Your task to perform on an android device: Open the stopwatch Image 0: 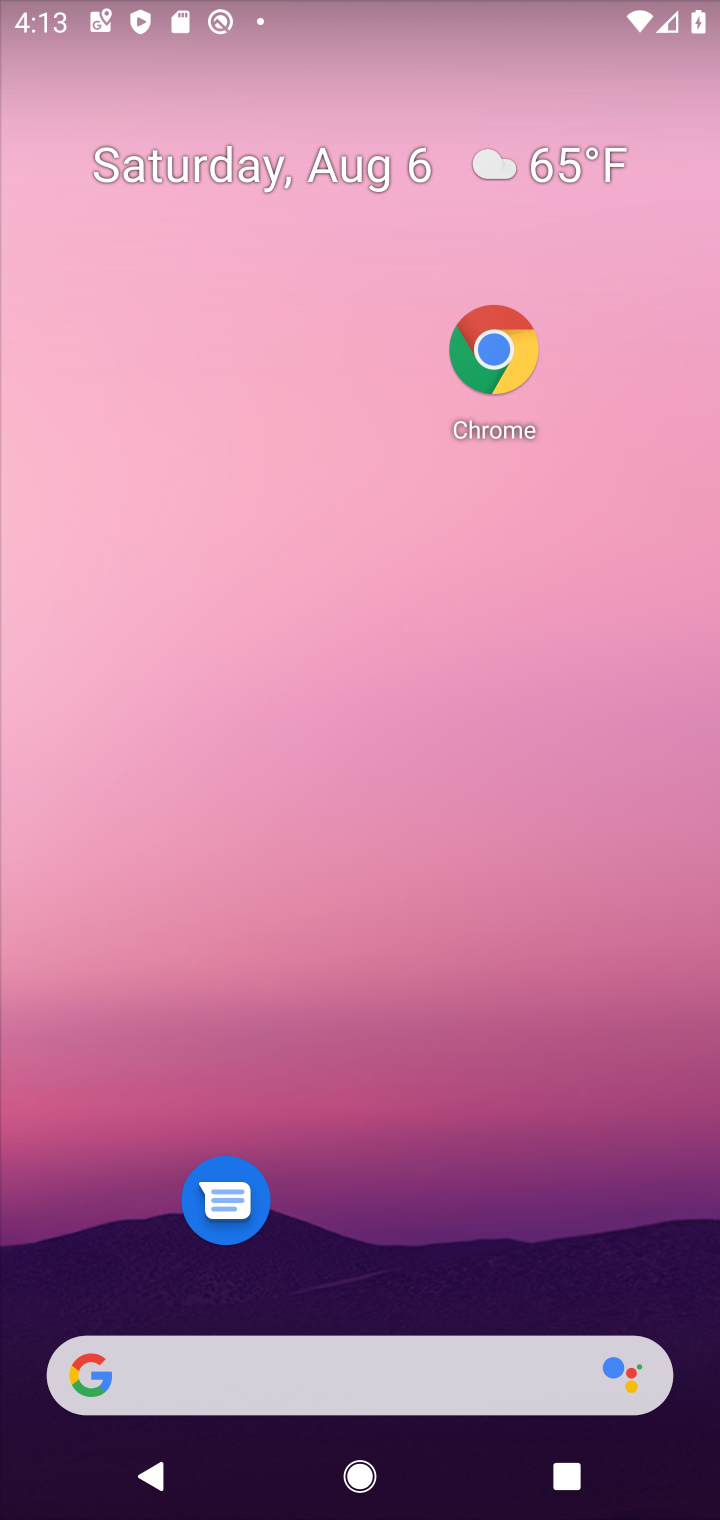
Step 0: drag from (312, 1335) to (322, 619)
Your task to perform on an android device: Open the stopwatch Image 1: 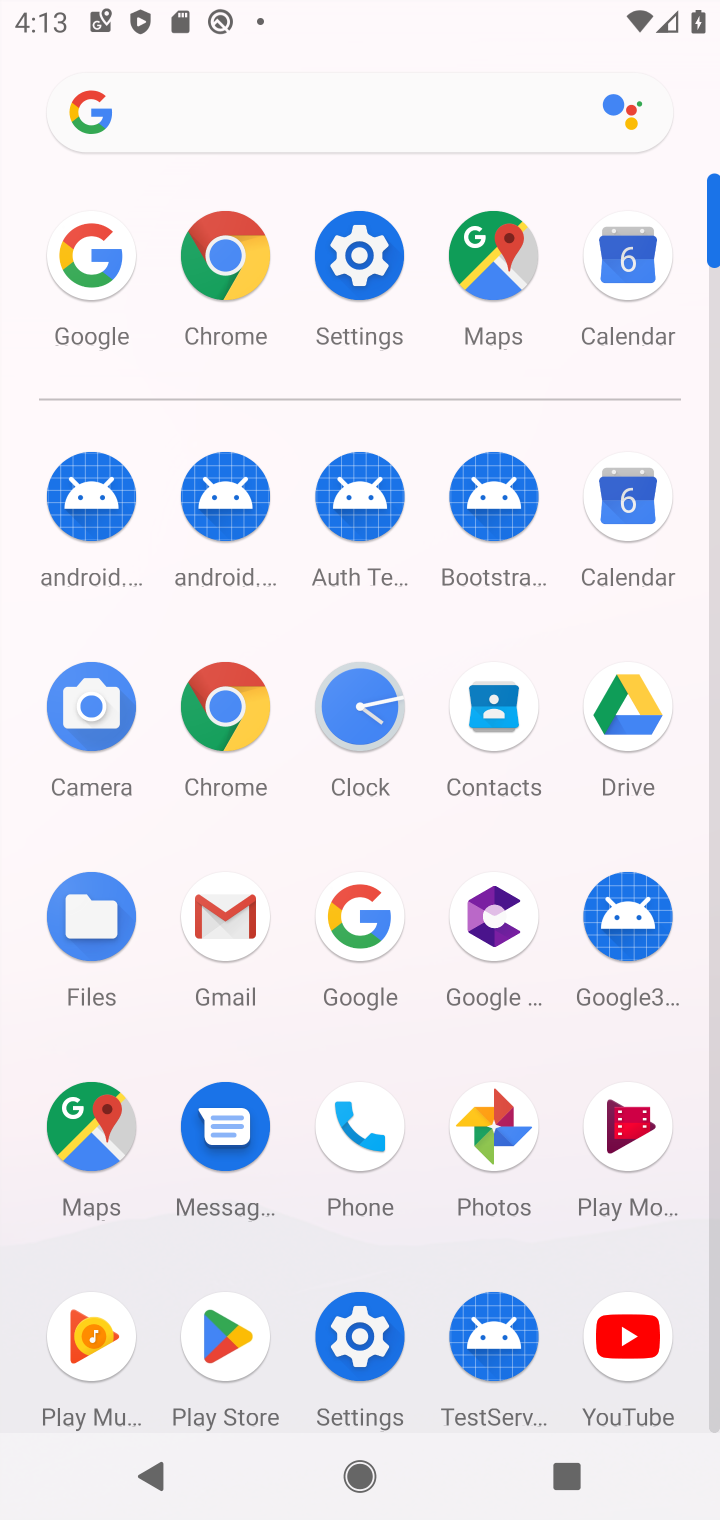
Step 1: click (348, 741)
Your task to perform on an android device: Open the stopwatch Image 2: 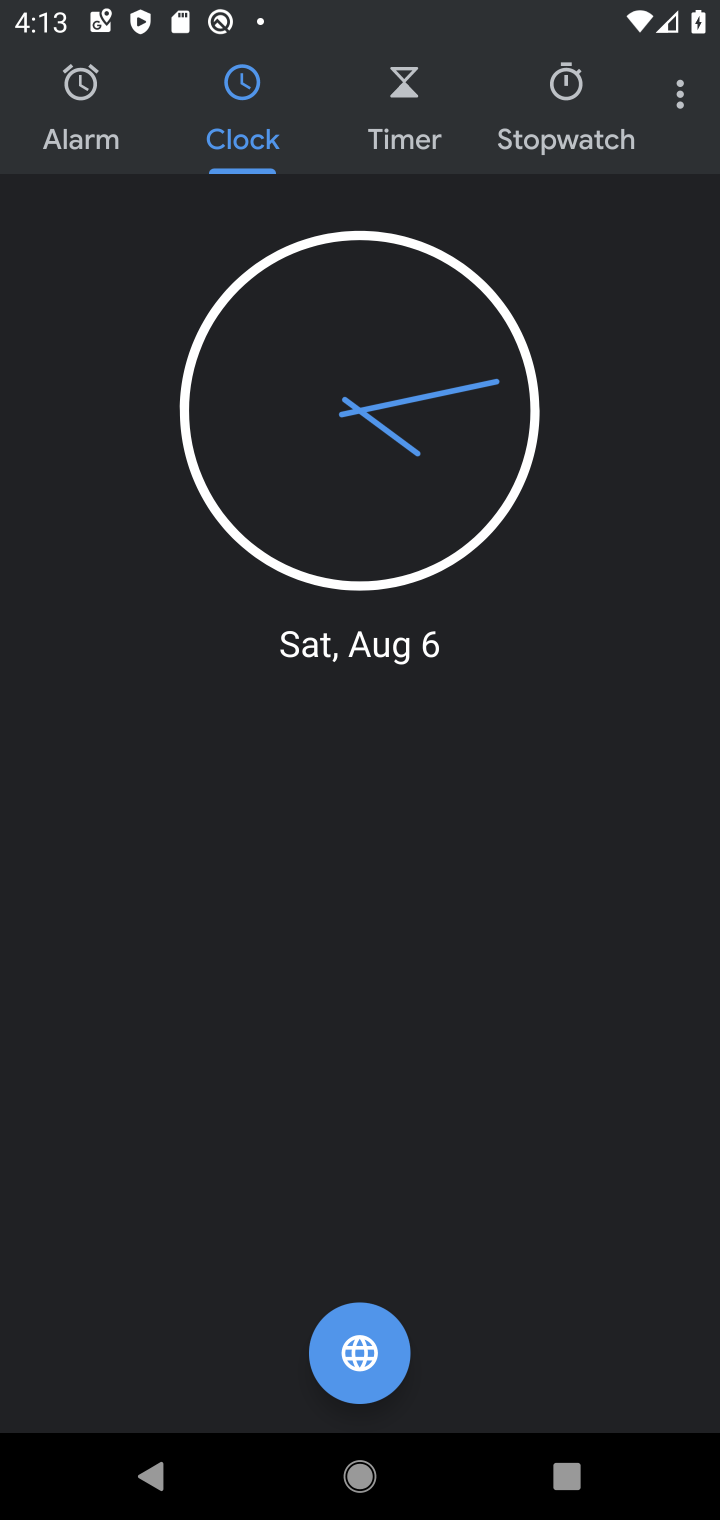
Step 2: click (597, 123)
Your task to perform on an android device: Open the stopwatch Image 3: 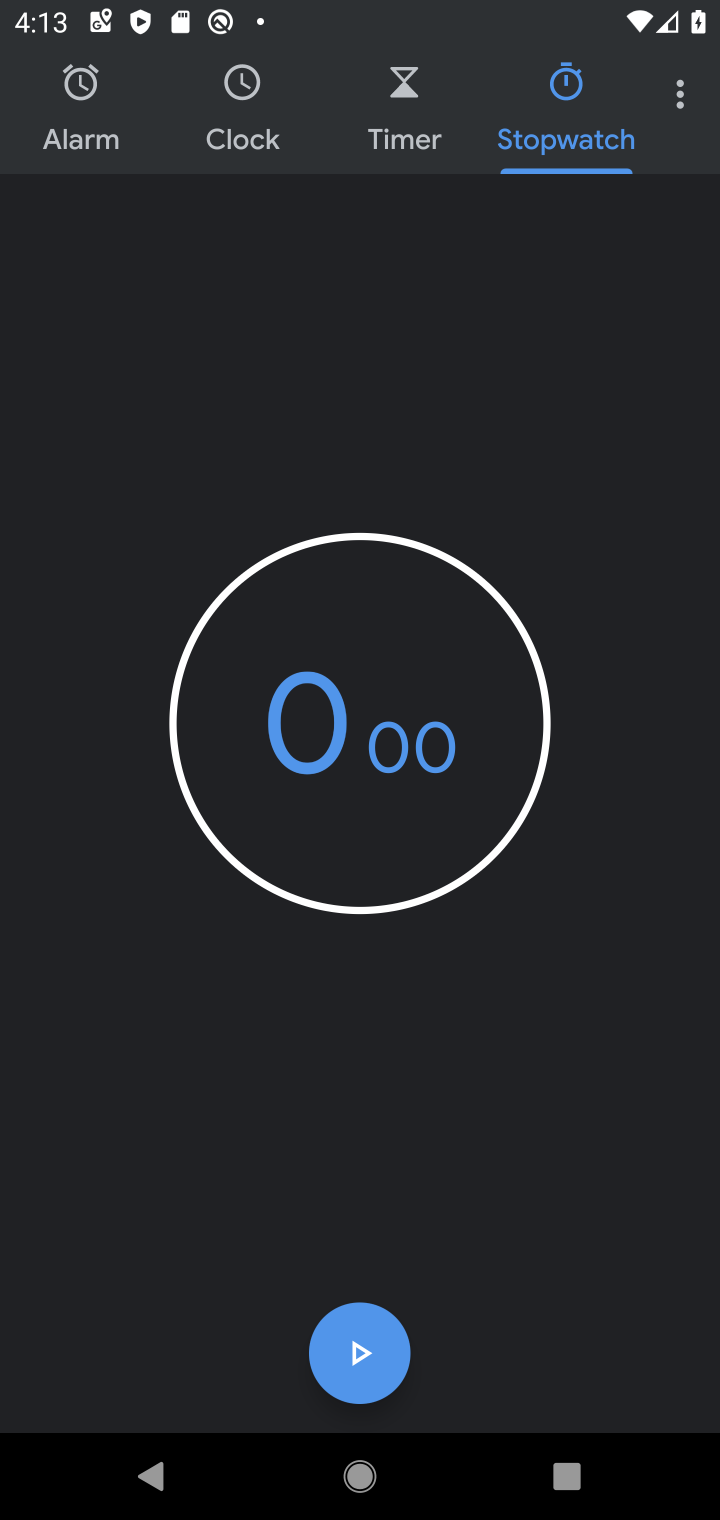
Step 3: task complete